Your task to perform on an android device: toggle improve location accuracy Image 0: 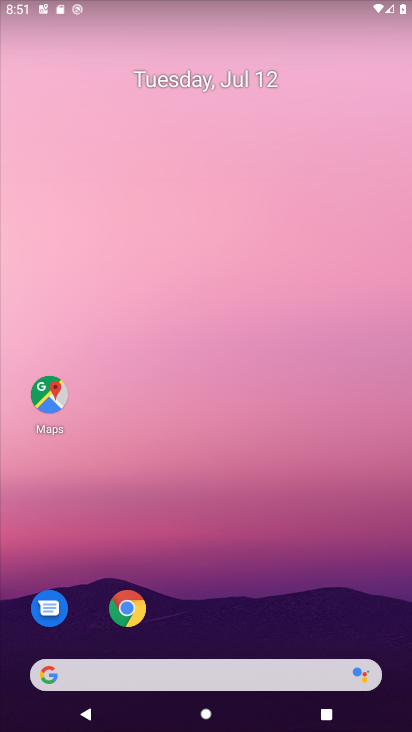
Step 0: drag from (173, 668) to (259, 242)
Your task to perform on an android device: toggle improve location accuracy Image 1: 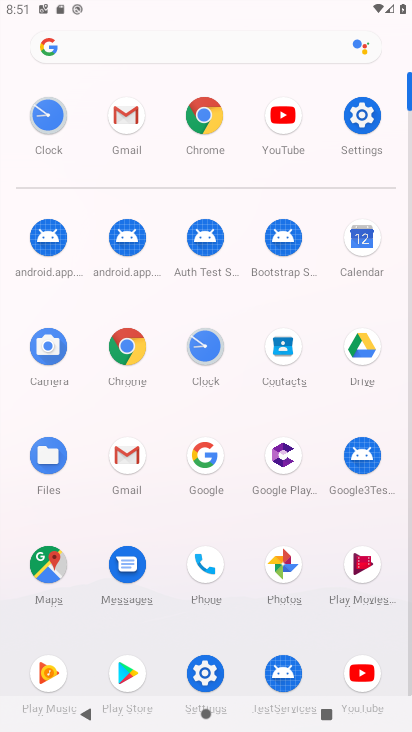
Step 1: click (356, 116)
Your task to perform on an android device: toggle improve location accuracy Image 2: 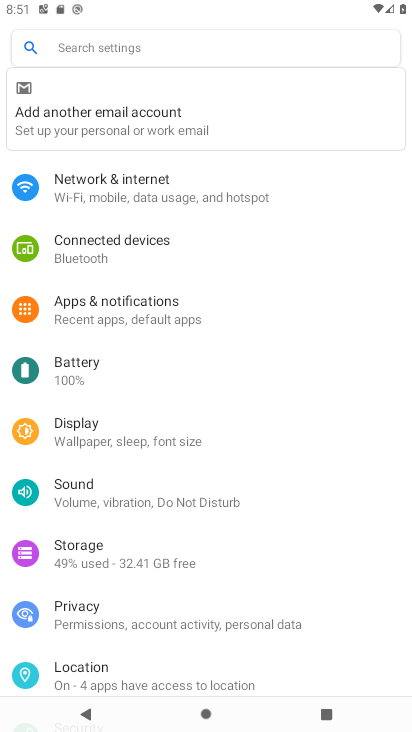
Step 2: click (117, 675)
Your task to perform on an android device: toggle improve location accuracy Image 3: 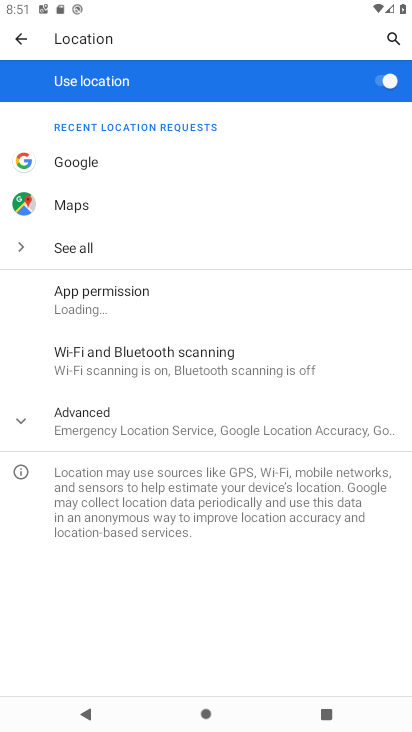
Step 3: click (115, 422)
Your task to perform on an android device: toggle improve location accuracy Image 4: 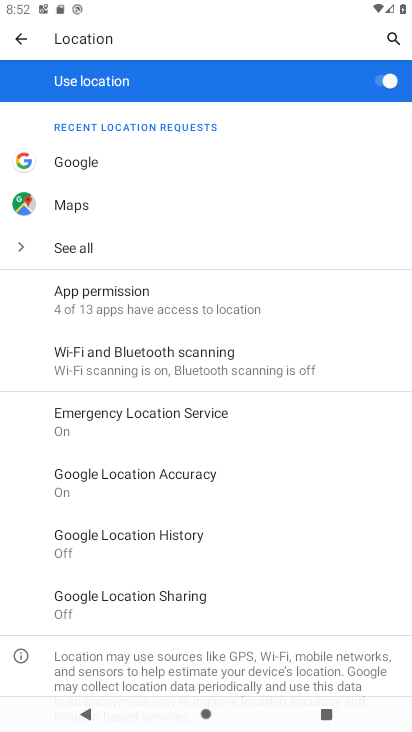
Step 4: click (156, 477)
Your task to perform on an android device: toggle improve location accuracy Image 5: 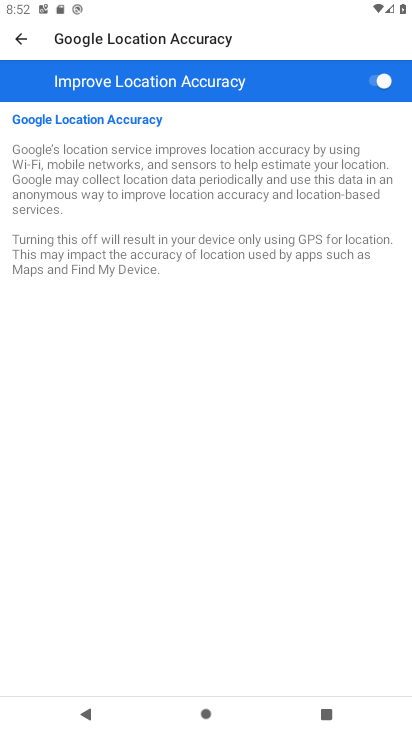
Step 5: click (372, 81)
Your task to perform on an android device: toggle improve location accuracy Image 6: 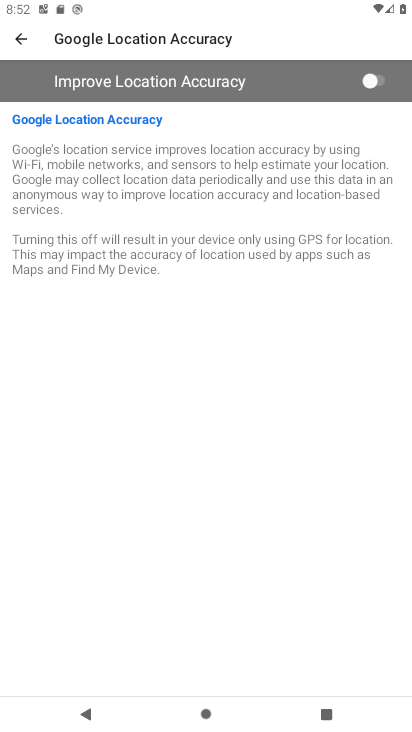
Step 6: task complete